Your task to perform on an android device: turn on wifi Image 0: 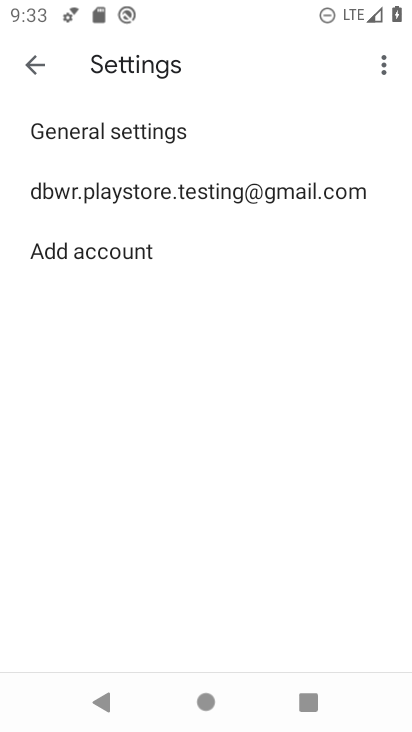
Step 0: press back button
Your task to perform on an android device: turn on wifi Image 1: 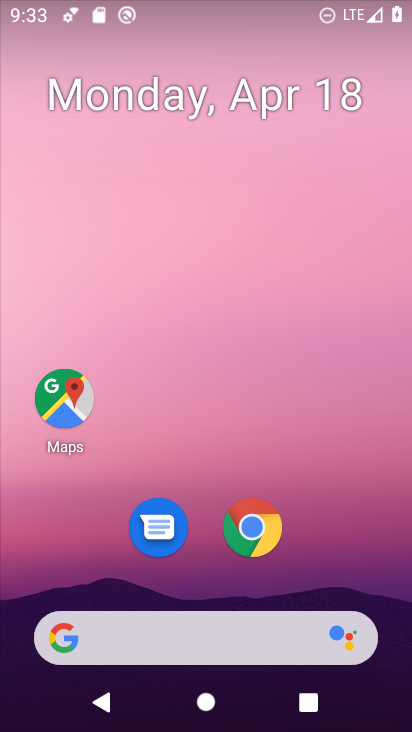
Step 1: drag from (361, 537) to (249, 21)
Your task to perform on an android device: turn on wifi Image 2: 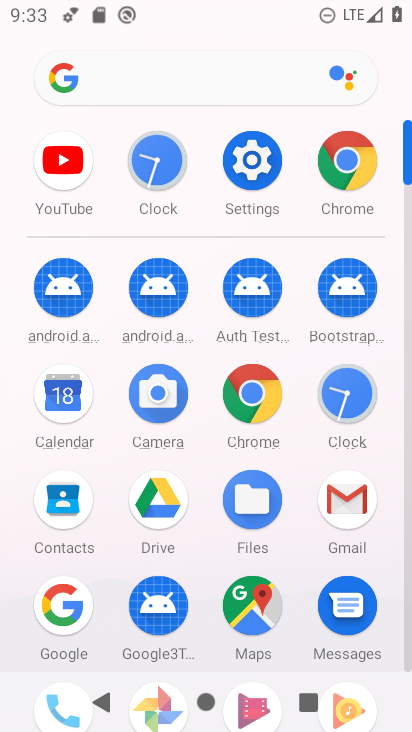
Step 2: click (252, 157)
Your task to perform on an android device: turn on wifi Image 3: 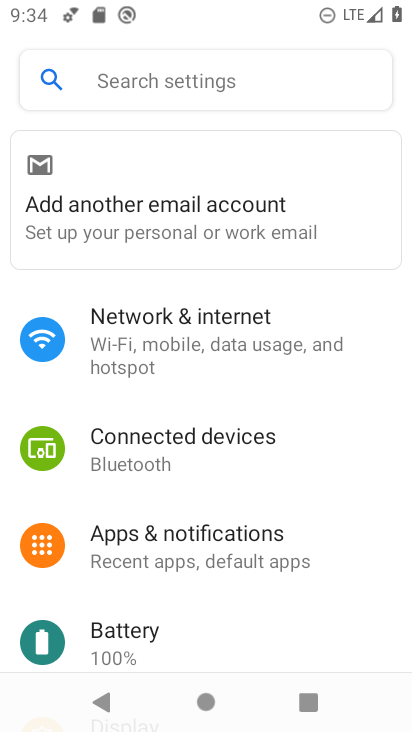
Step 3: click (193, 329)
Your task to perform on an android device: turn on wifi Image 4: 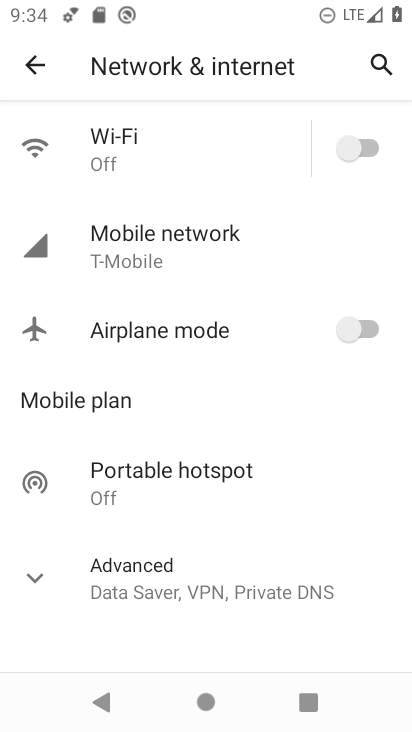
Step 4: click (352, 139)
Your task to perform on an android device: turn on wifi Image 5: 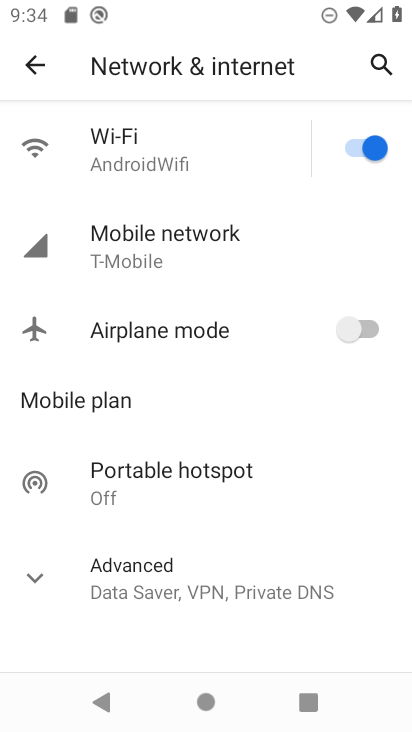
Step 5: task complete